Your task to perform on an android device: toggle improve location accuracy Image 0: 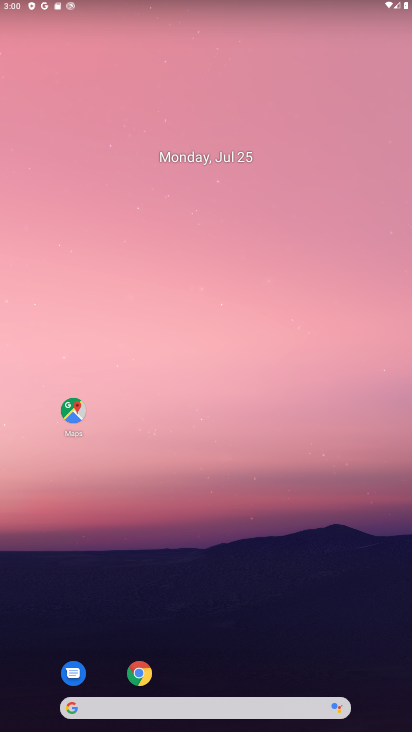
Step 0: drag from (263, 663) to (268, 289)
Your task to perform on an android device: toggle improve location accuracy Image 1: 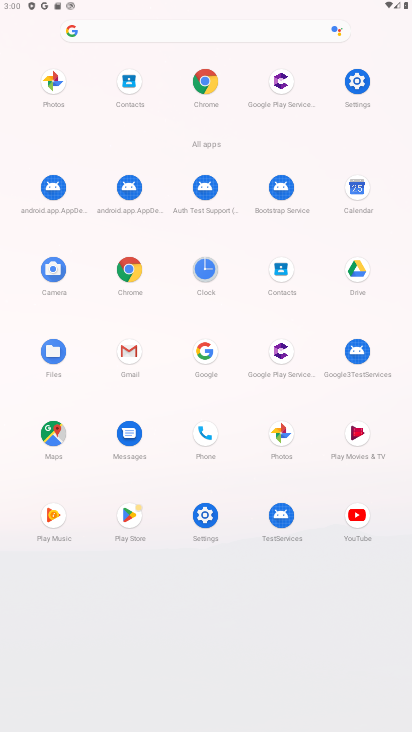
Step 1: click (205, 518)
Your task to perform on an android device: toggle improve location accuracy Image 2: 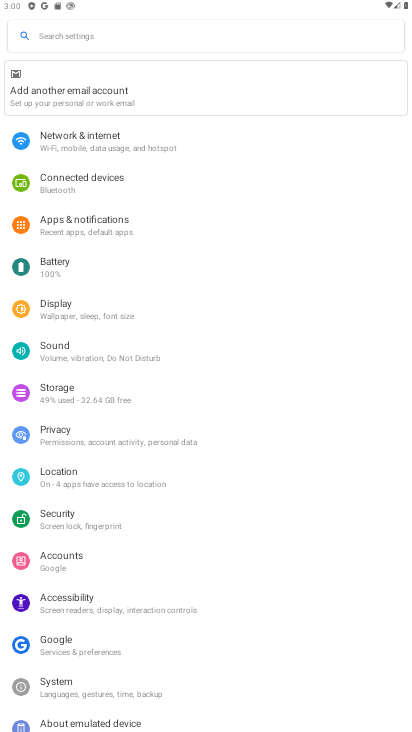
Step 2: click (63, 479)
Your task to perform on an android device: toggle improve location accuracy Image 3: 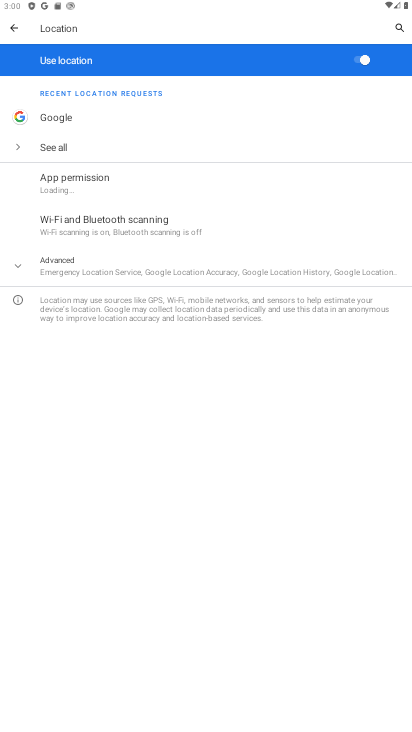
Step 3: task complete